Your task to perform on an android device: turn off priority inbox in the gmail app Image 0: 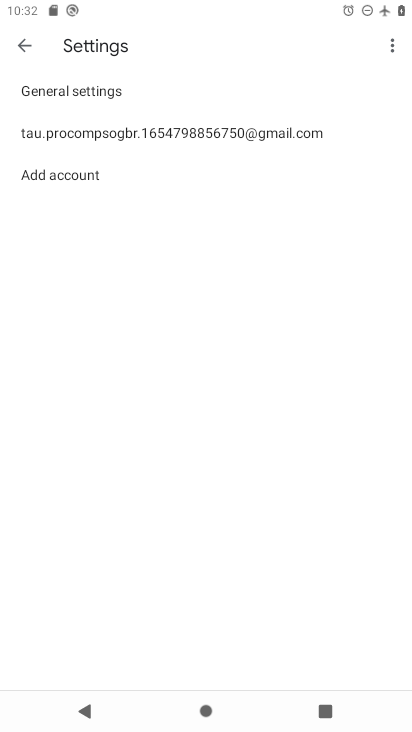
Step 0: click (261, 142)
Your task to perform on an android device: turn off priority inbox in the gmail app Image 1: 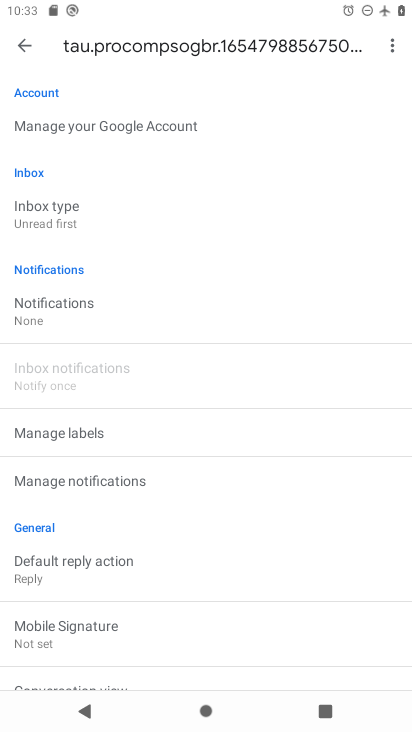
Step 1: click (64, 233)
Your task to perform on an android device: turn off priority inbox in the gmail app Image 2: 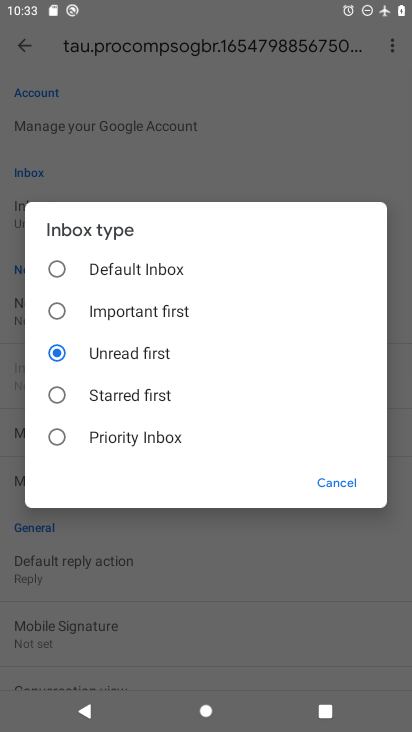
Step 2: task complete